Your task to perform on an android device: toggle data saver in the chrome app Image 0: 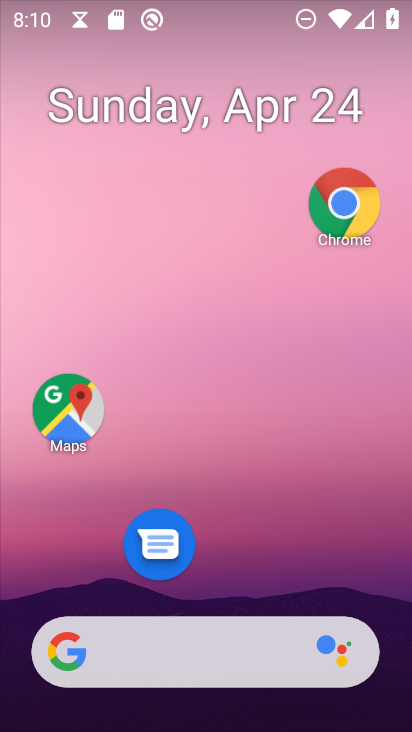
Step 0: drag from (165, 655) to (275, 83)
Your task to perform on an android device: toggle data saver in the chrome app Image 1: 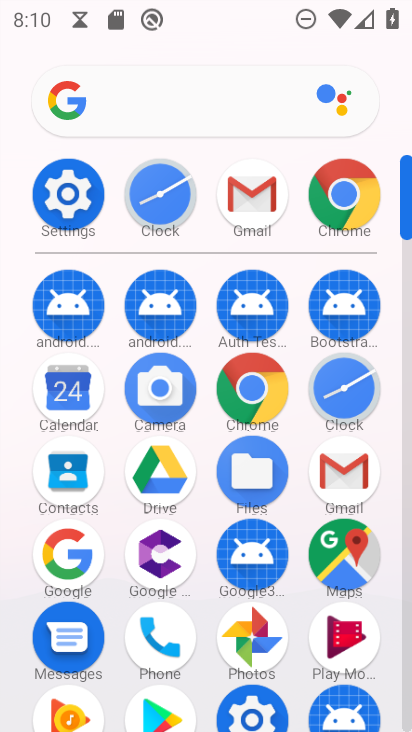
Step 1: click (338, 206)
Your task to perform on an android device: toggle data saver in the chrome app Image 2: 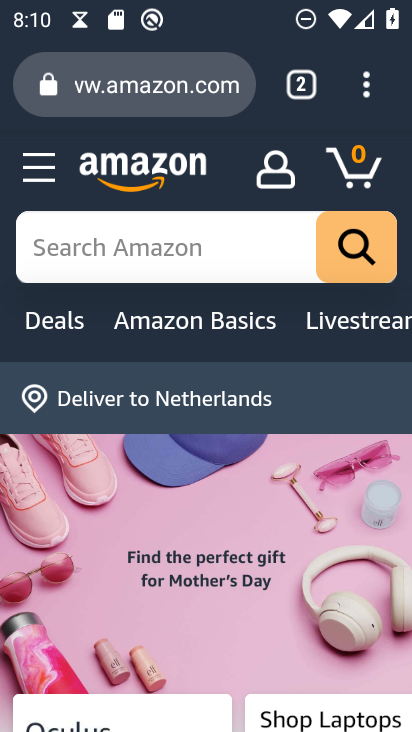
Step 2: drag from (364, 87) to (111, 595)
Your task to perform on an android device: toggle data saver in the chrome app Image 3: 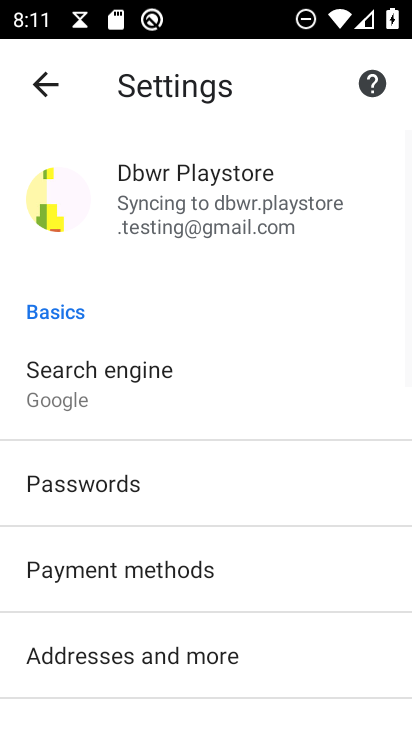
Step 3: drag from (166, 610) to (349, 98)
Your task to perform on an android device: toggle data saver in the chrome app Image 4: 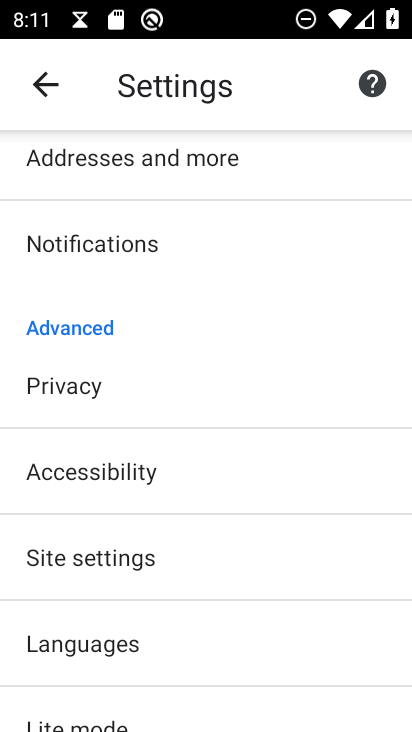
Step 4: drag from (192, 642) to (251, 341)
Your task to perform on an android device: toggle data saver in the chrome app Image 5: 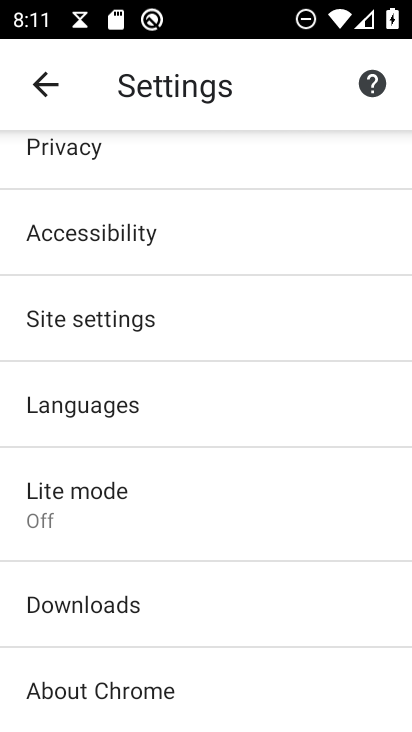
Step 5: click (104, 503)
Your task to perform on an android device: toggle data saver in the chrome app Image 6: 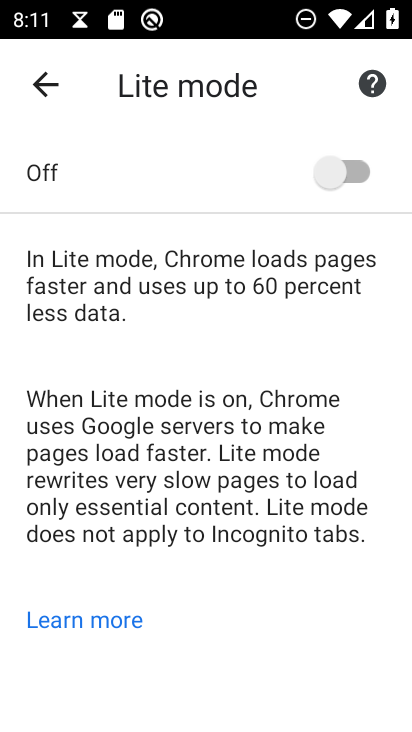
Step 6: click (358, 167)
Your task to perform on an android device: toggle data saver in the chrome app Image 7: 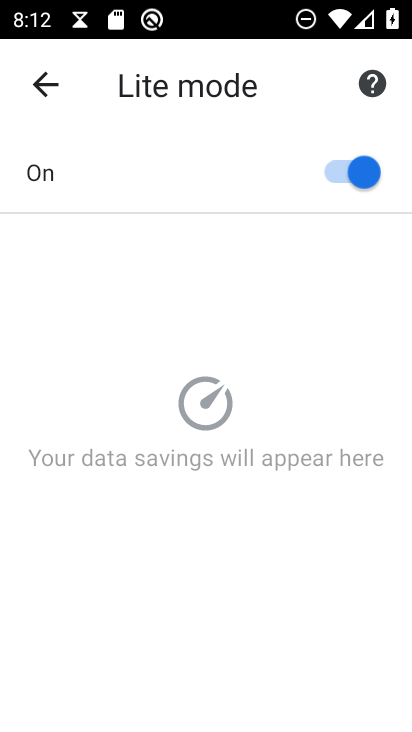
Step 7: task complete